Your task to perform on an android device: Turn off the flashlight Image 0: 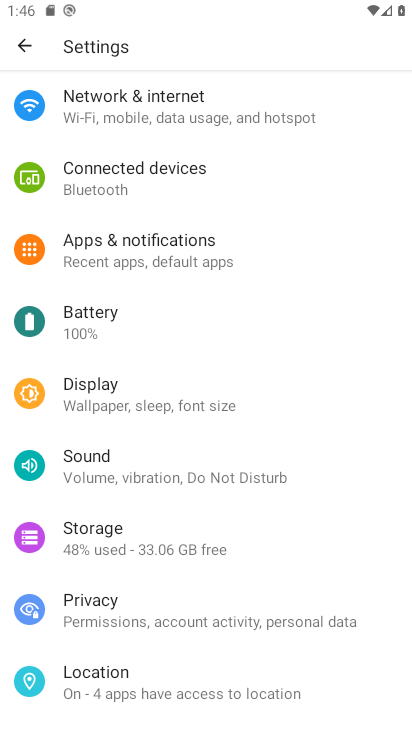
Step 0: drag from (187, 150) to (190, 518)
Your task to perform on an android device: Turn off the flashlight Image 1: 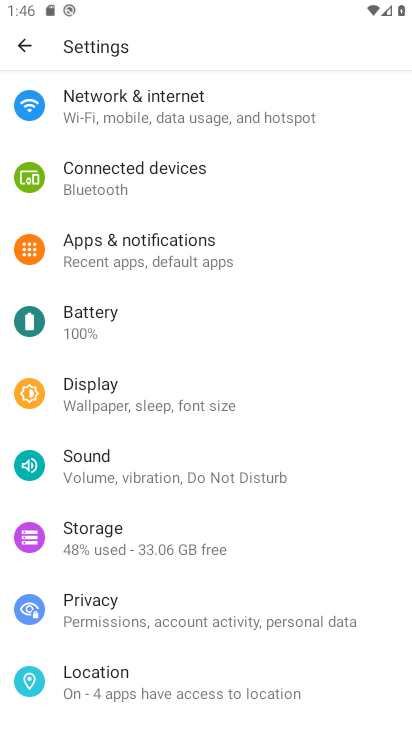
Step 1: drag from (199, 555) to (249, 287)
Your task to perform on an android device: Turn off the flashlight Image 2: 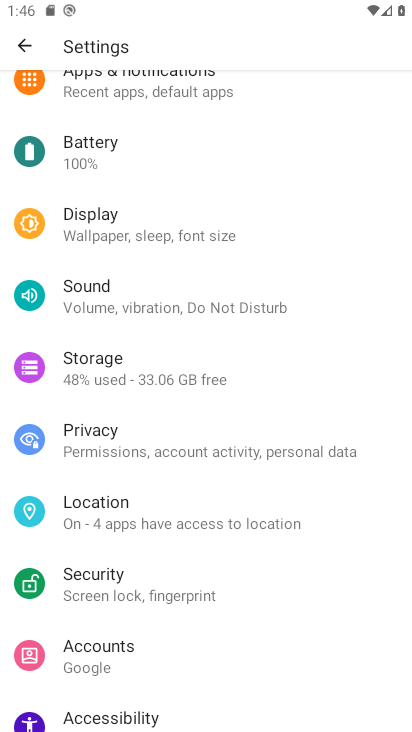
Step 2: drag from (167, 722) to (187, 529)
Your task to perform on an android device: Turn off the flashlight Image 3: 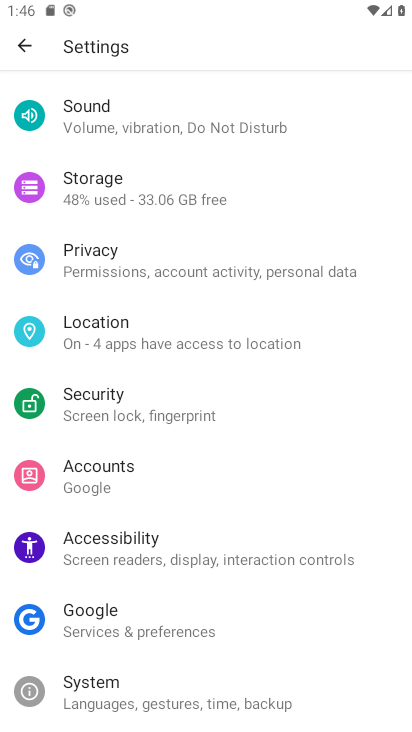
Step 3: drag from (158, 305) to (124, 720)
Your task to perform on an android device: Turn off the flashlight Image 4: 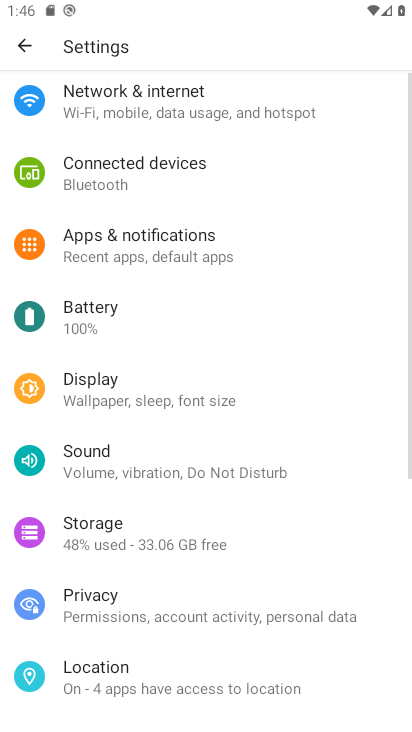
Step 4: drag from (166, 145) to (166, 251)
Your task to perform on an android device: Turn off the flashlight Image 5: 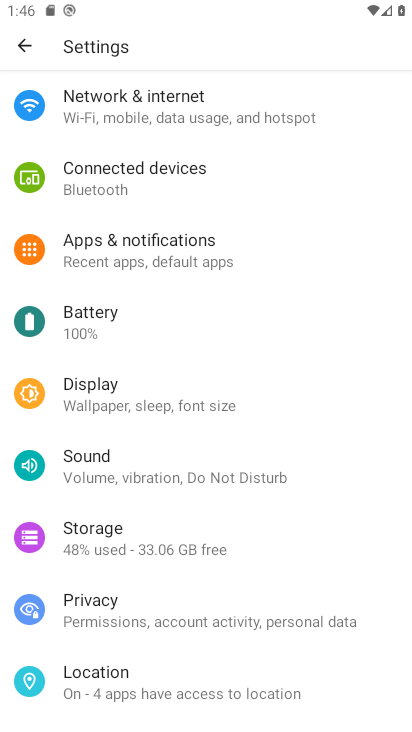
Step 5: click (181, 50)
Your task to perform on an android device: Turn off the flashlight Image 6: 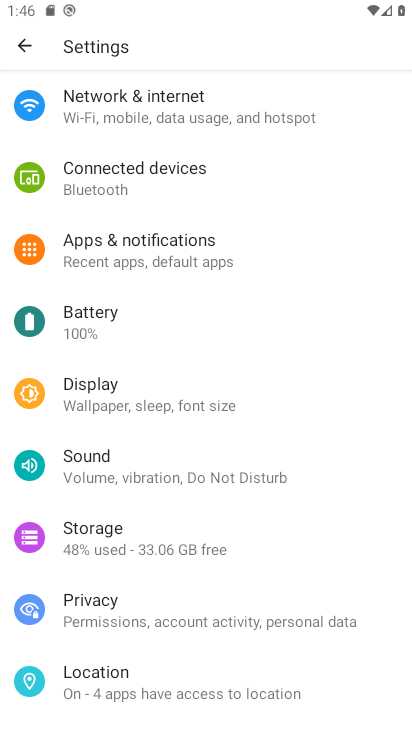
Step 6: click (173, 92)
Your task to perform on an android device: Turn off the flashlight Image 7: 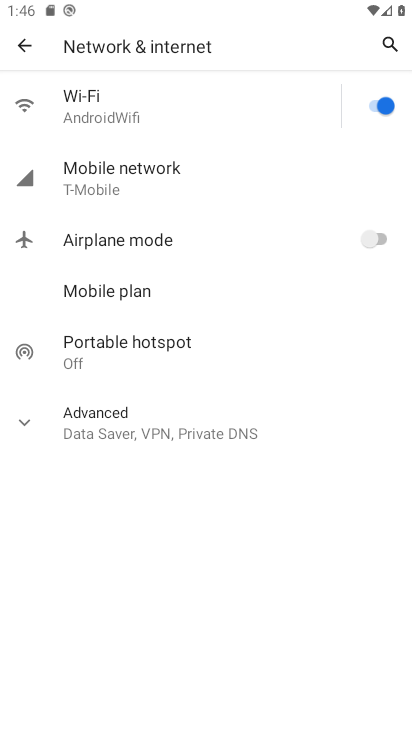
Step 7: task complete